Your task to perform on an android device: Turn on the flashlight Image 0: 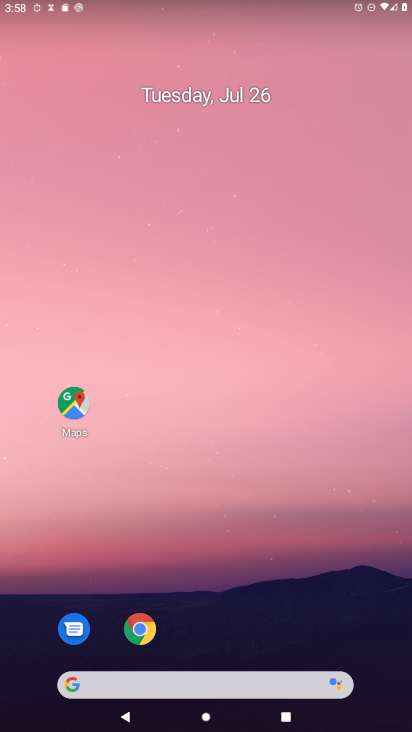
Step 0: drag from (166, 666) to (277, 1)
Your task to perform on an android device: Turn on the flashlight Image 1: 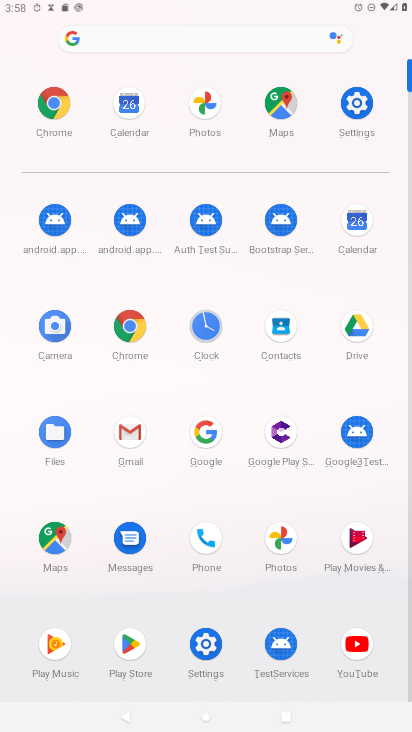
Step 1: click (359, 100)
Your task to perform on an android device: Turn on the flashlight Image 2: 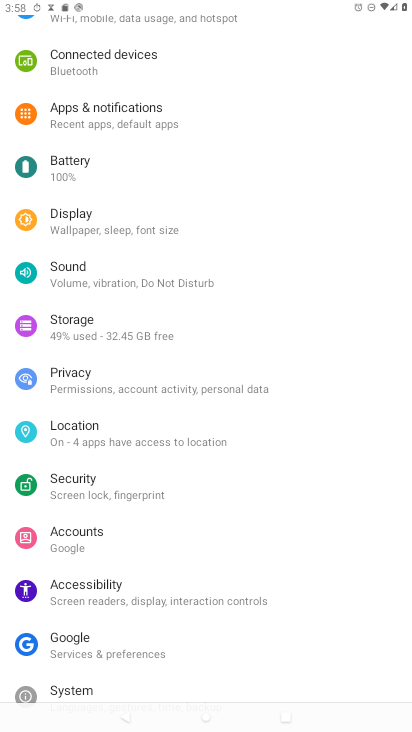
Step 2: task complete